Your task to perform on an android device: Open the calendar and show me this week's events Image 0: 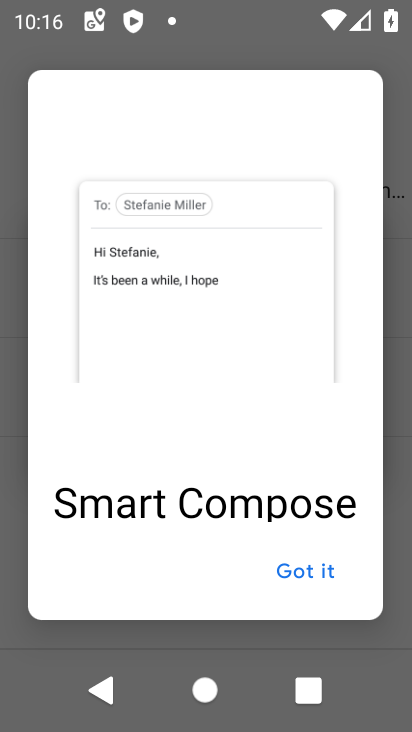
Step 0: press home button
Your task to perform on an android device: Open the calendar and show me this week's events Image 1: 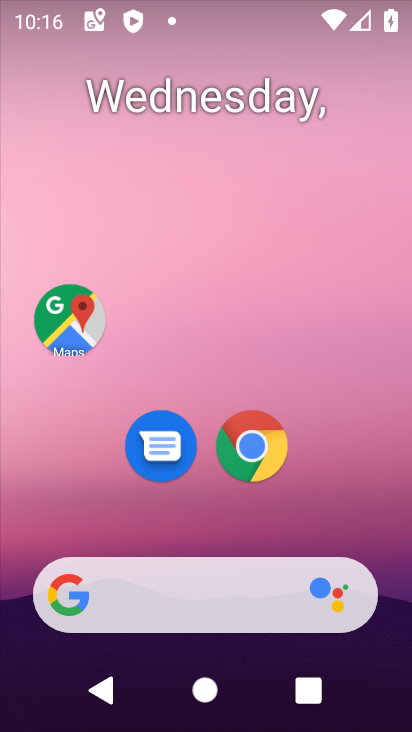
Step 1: drag from (198, 524) to (152, 12)
Your task to perform on an android device: Open the calendar and show me this week's events Image 2: 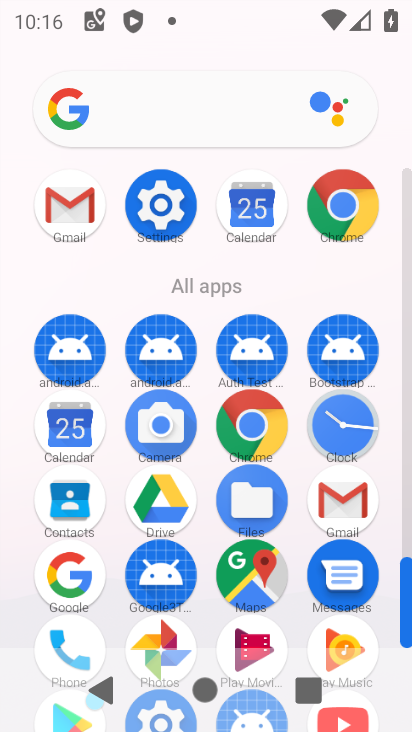
Step 2: click (256, 233)
Your task to perform on an android device: Open the calendar and show me this week's events Image 3: 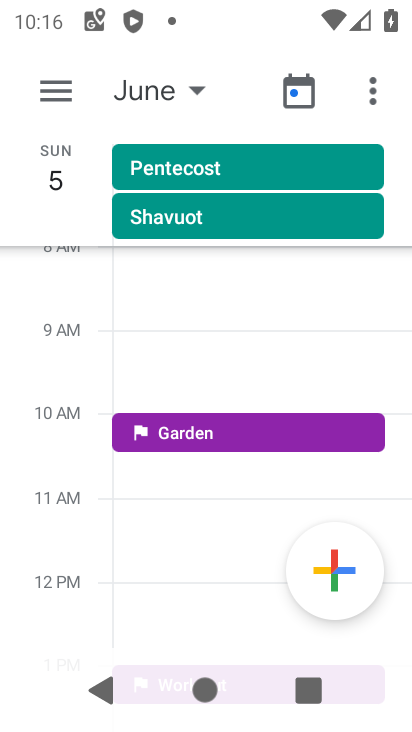
Step 3: click (160, 88)
Your task to perform on an android device: Open the calendar and show me this week's events Image 4: 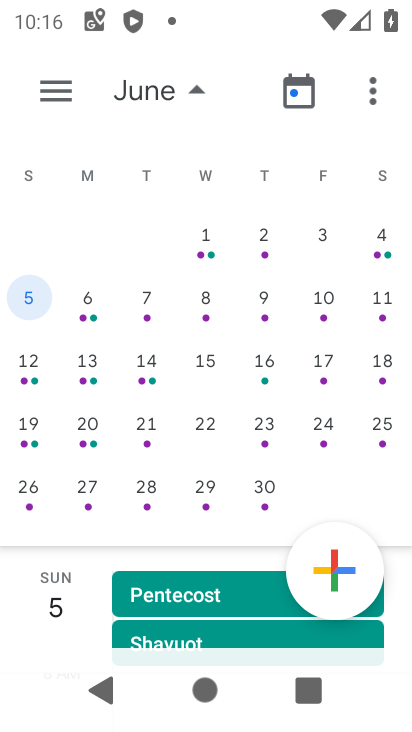
Step 4: drag from (62, 381) to (376, 347)
Your task to perform on an android device: Open the calendar and show me this week's events Image 5: 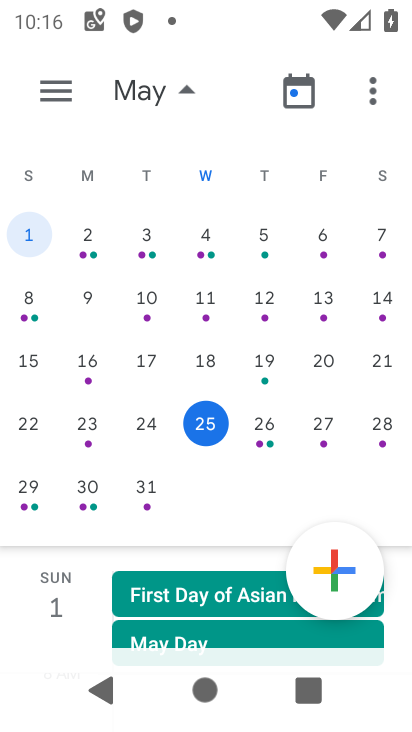
Step 5: click (36, 434)
Your task to perform on an android device: Open the calendar and show me this week's events Image 6: 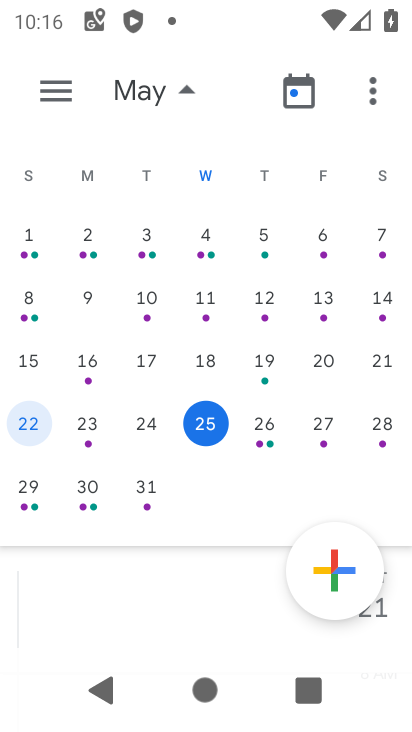
Step 6: click (36, 434)
Your task to perform on an android device: Open the calendar and show me this week's events Image 7: 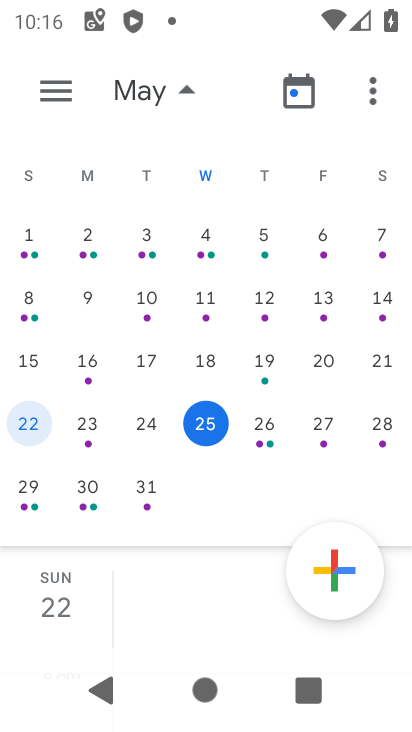
Step 7: click (71, 99)
Your task to perform on an android device: Open the calendar and show me this week's events Image 8: 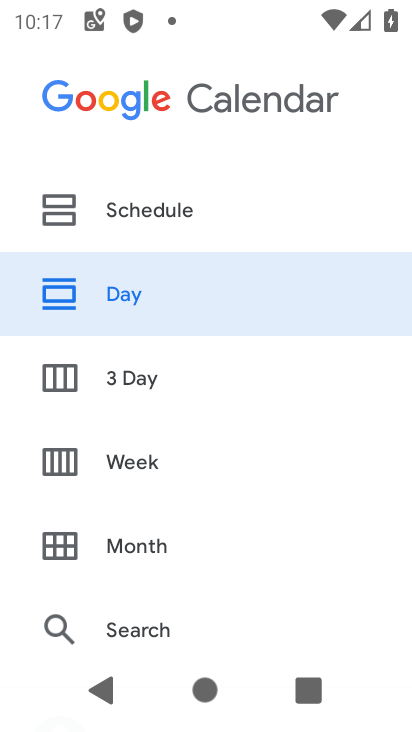
Step 8: click (159, 474)
Your task to perform on an android device: Open the calendar and show me this week's events Image 9: 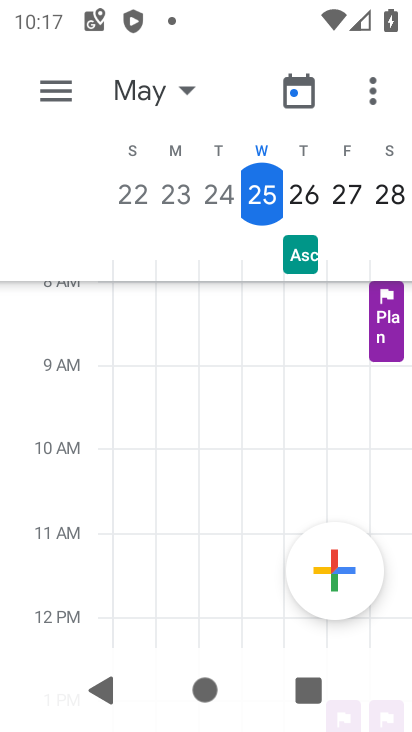
Step 9: task complete